Your task to perform on an android device: visit the assistant section in the google photos Image 0: 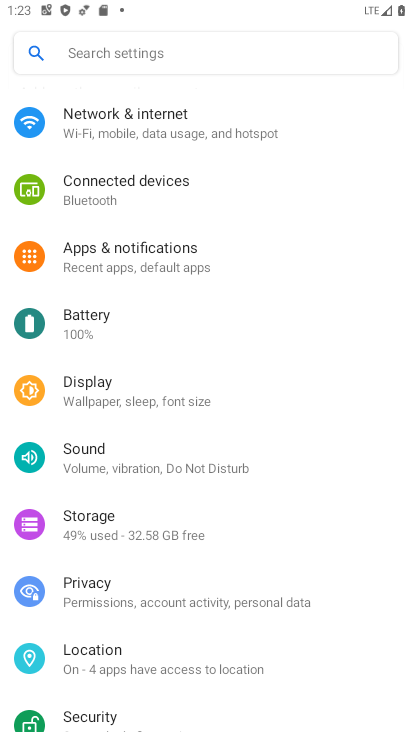
Step 0: drag from (232, 659) to (177, 239)
Your task to perform on an android device: visit the assistant section in the google photos Image 1: 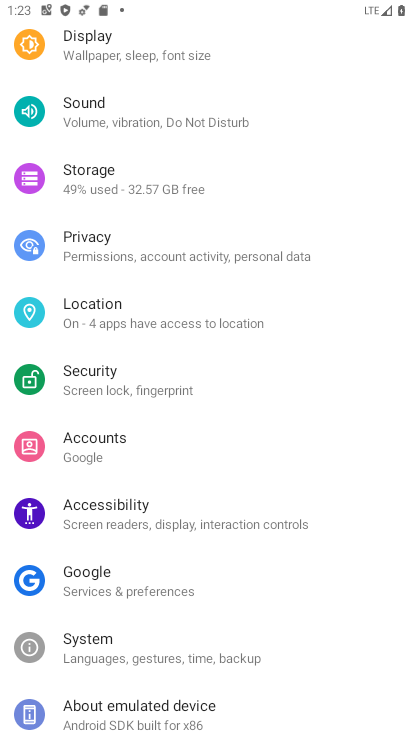
Step 1: press home button
Your task to perform on an android device: visit the assistant section in the google photos Image 2: 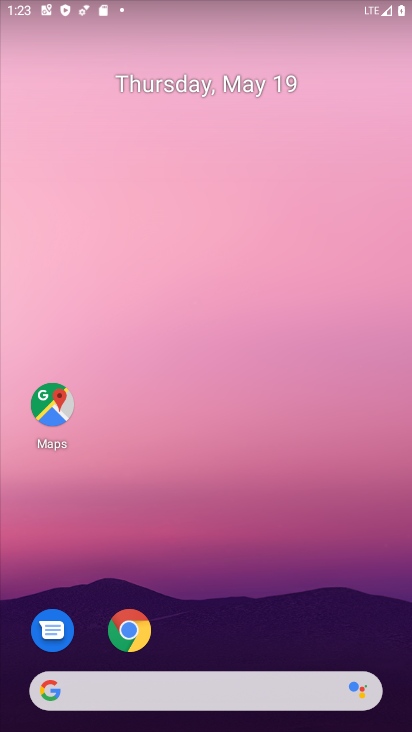
Step 2: drag from (202, 652) to (126, 81)
Your task to perform on an android device: visit the assistant section in the google photos Image 3: 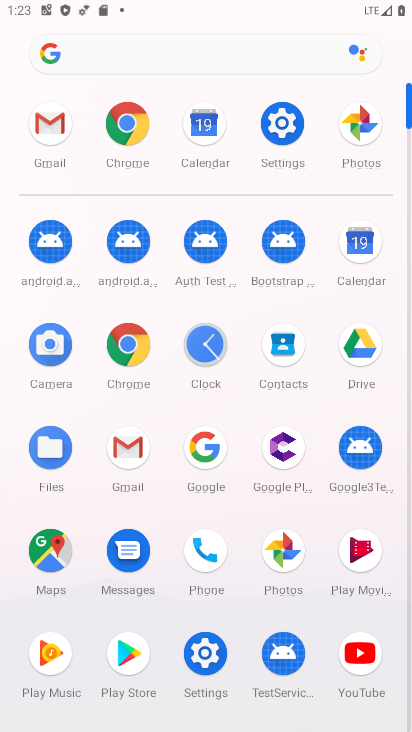
Step 3: click (287, 550)
Your task to perform on an android device: visit the assistant section in the google photos Image 4: 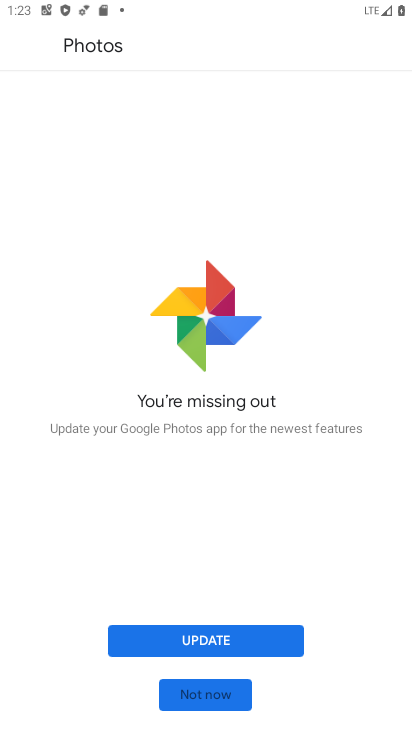
Step 4: click (226, 695)
Your task to perform on an android device: visit the assistant section in the google photos Image 5: 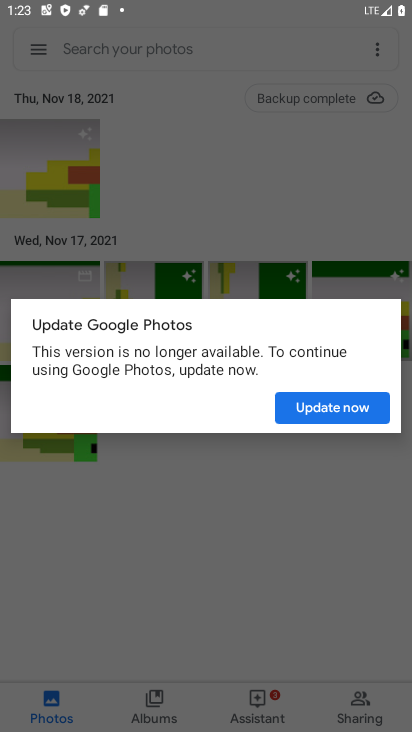
Step 5: click (327, 406)
Your task to perform on an android device: visit the assistant section in the google photos Image 6: 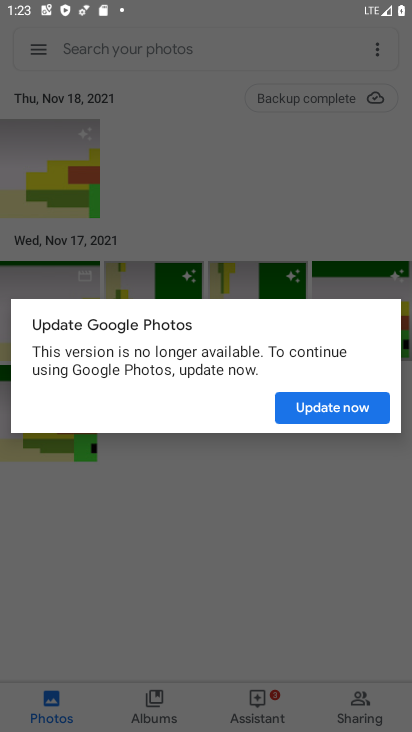
Step 6: click (281, 689)
Your task to perform on an android device: visit the assistant section in the google photos Image 7: 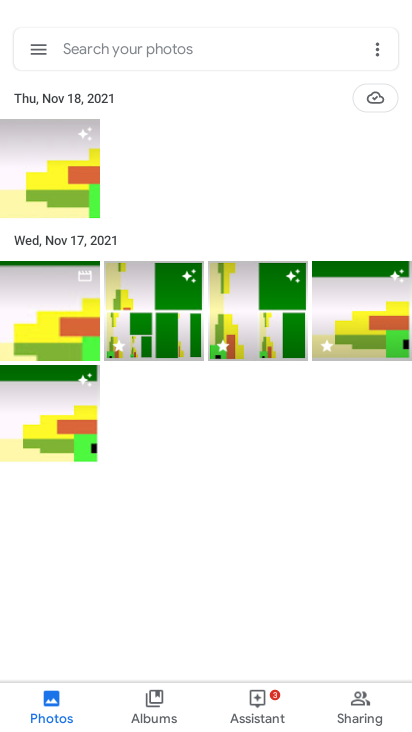
Step 7: click (246, 705)
Your task to perform on an android device: visit the assistant section in the google photos Image 8: 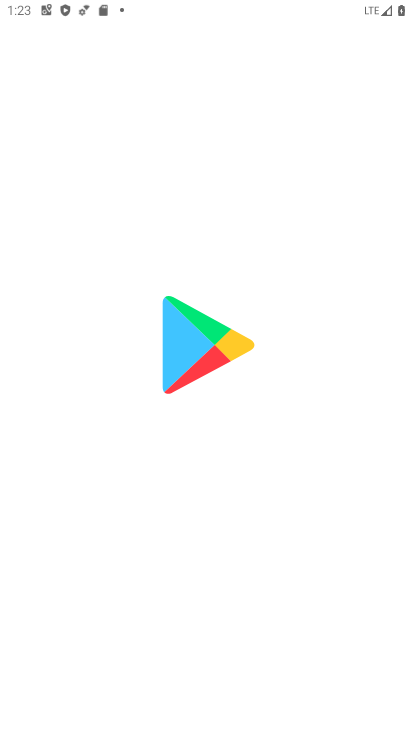
Step 8: task complete